Your task to perform on an android device: Open the calendar and show me this week's events Image 0: 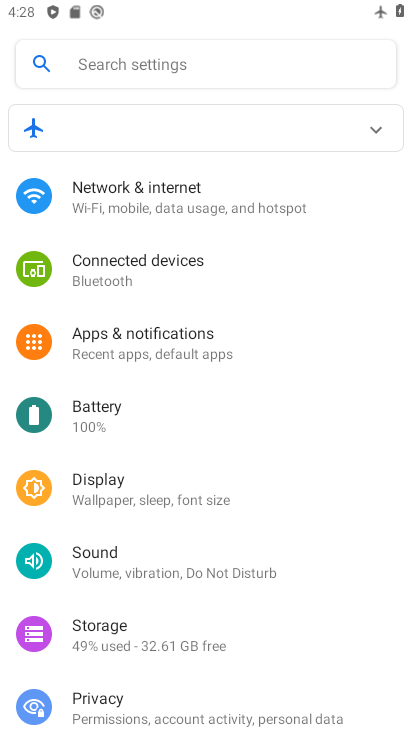
Step 0: press home button
Your task to perform on an android device: Open the calendar and show me this week's events Image 1: 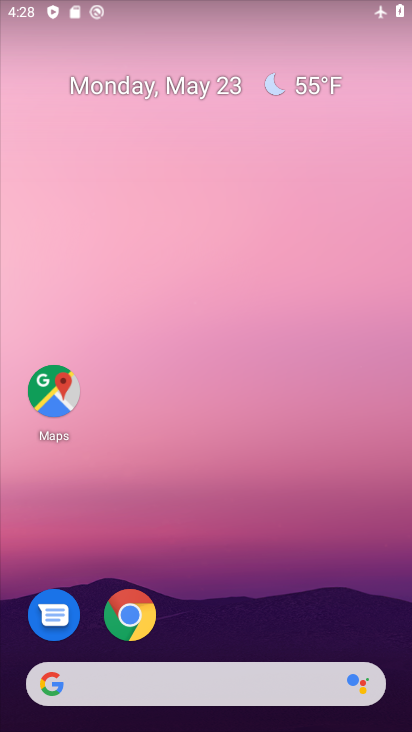
Step 1: drag from (387, 642) to (374, 192)
Your task to perform on an android device: Open the calendar and show me this week's events Image 2: 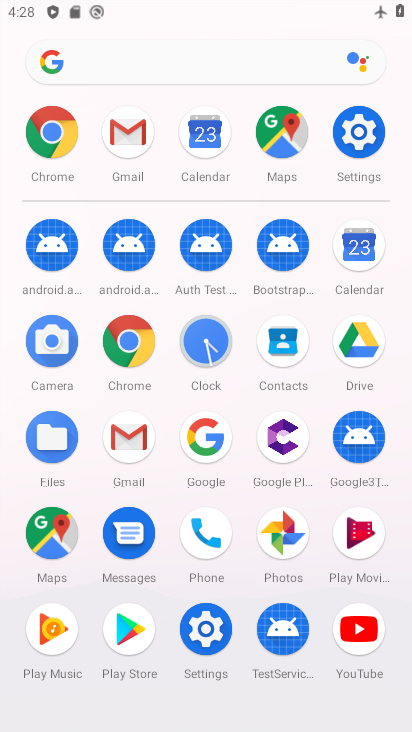
Step 2: click (356, 264)
Your task to perform on an android device: Open the calendar and show me this week's events Image 3: 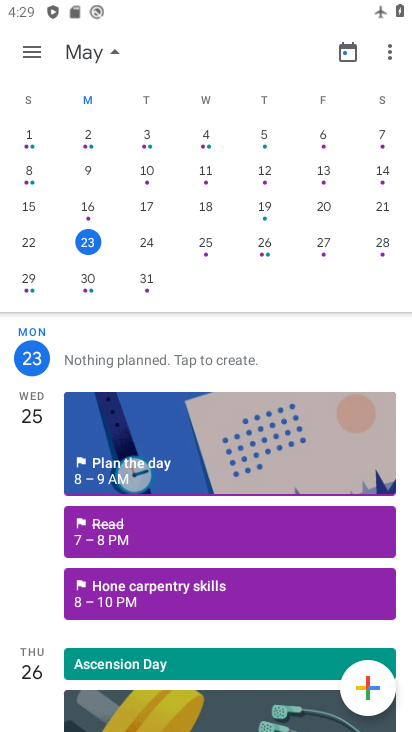
Step 3: task complete